Your task to perform on an android device: Go to battery settings Image 0: 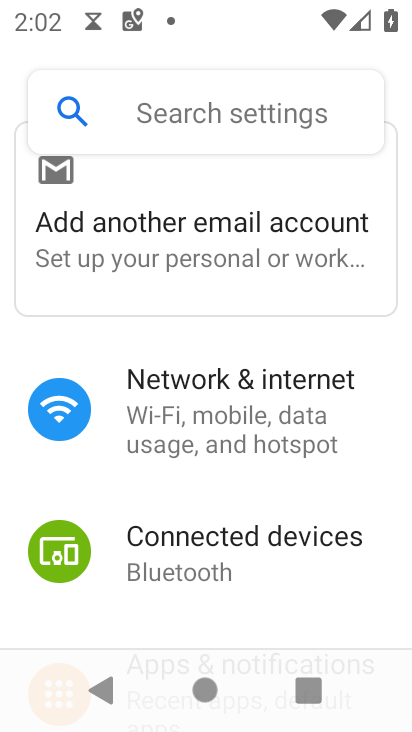
Step 0: drag from (293, 533) to (262, 196)
Your task to perform on an android device: Go to battery settings Image 1: 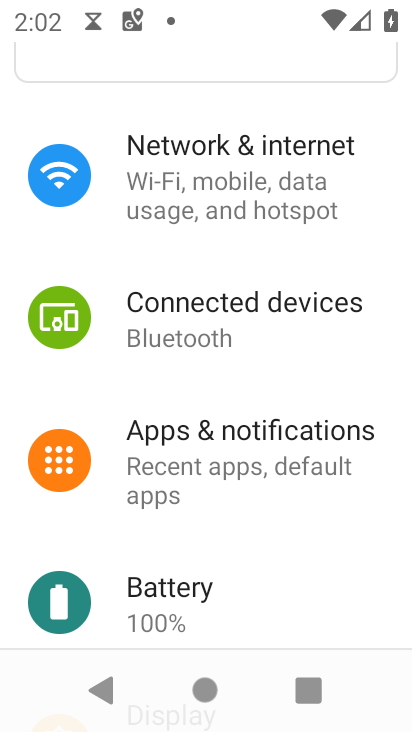
Step 1: drag from (314, 543) to (324, 268)
Your task to perform on an android device: Go to battery settings Image 2: 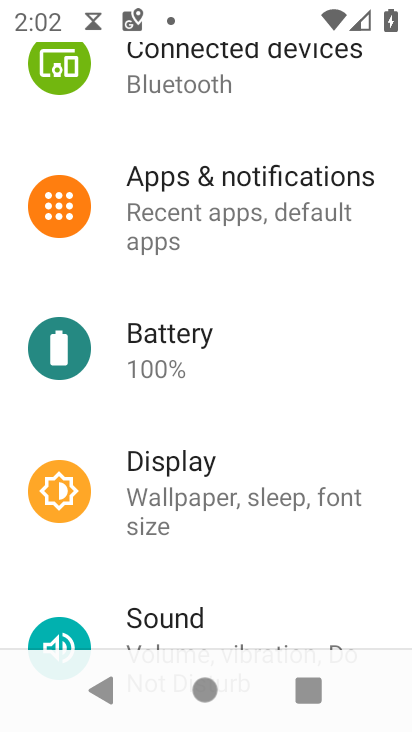
Step 2: click (199, 334)
Your task to perform on an android device: Go to battery settings Image 3: 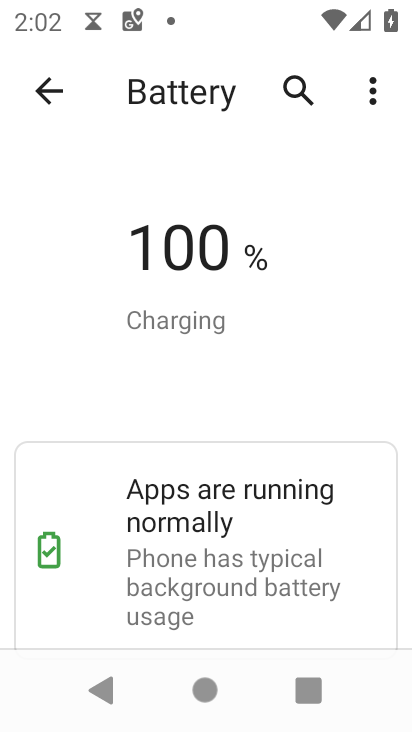
Step 3: task complete